Your task to perform on an android device: turn off notifications settings in the gmail app Image 0: 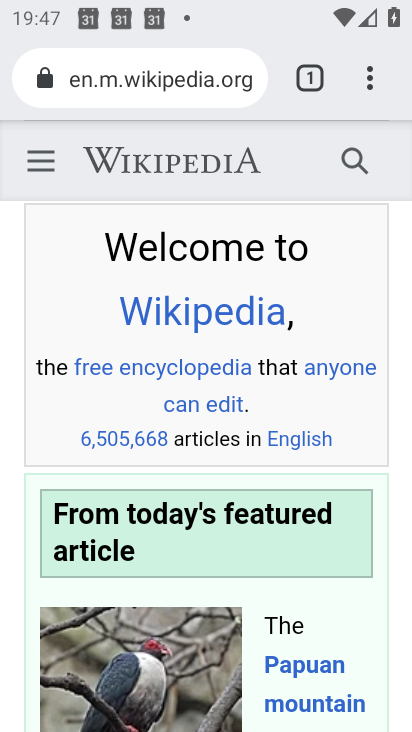
Step 0: press home button
Your task to perform on an android device: turn off notifications settings in the gmail app Image 1: 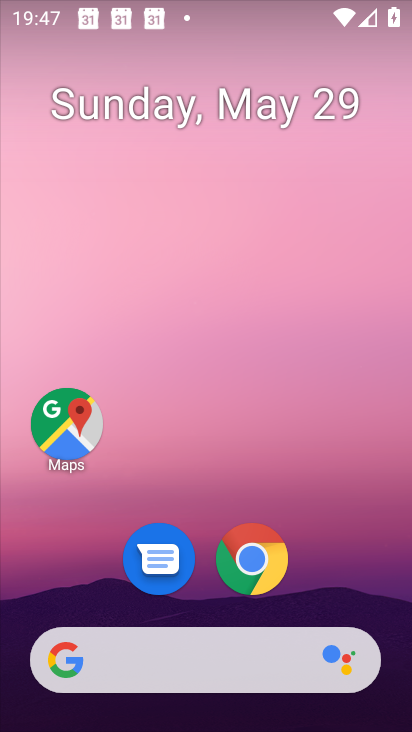
Step 1: drag from (378, 614) to (380, 180)
Your task to perform on an android device: turn off notifications settings in the gmail app Image 2: 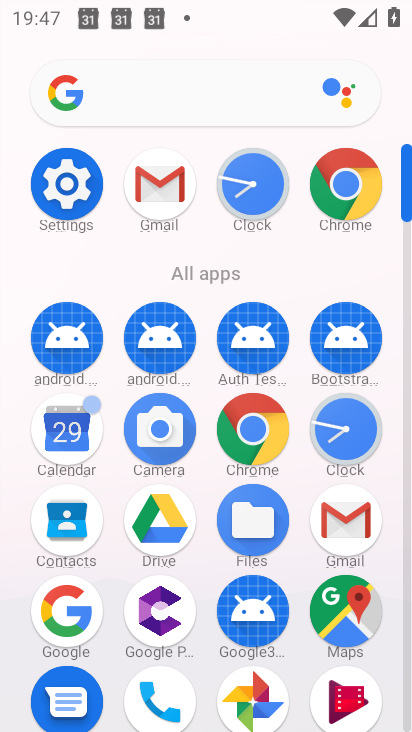
Step 2: click (335, 527)
Your task to perform on an android device: turn off notifications settings in the gmail app Image 3: 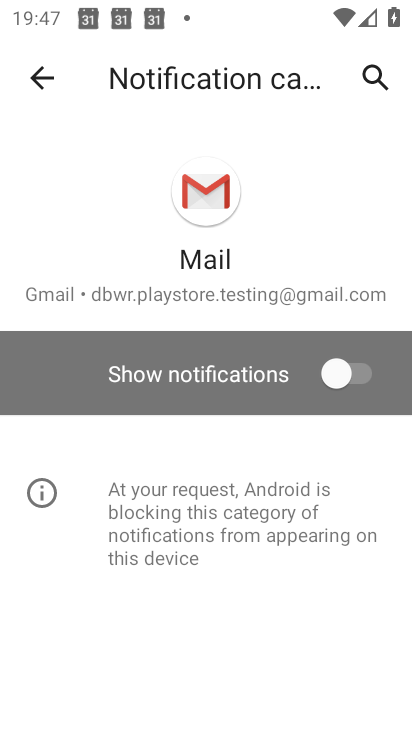
Step 3: task complete